Your task to perform on an android device: snooze an email in the gmail app Image 0: 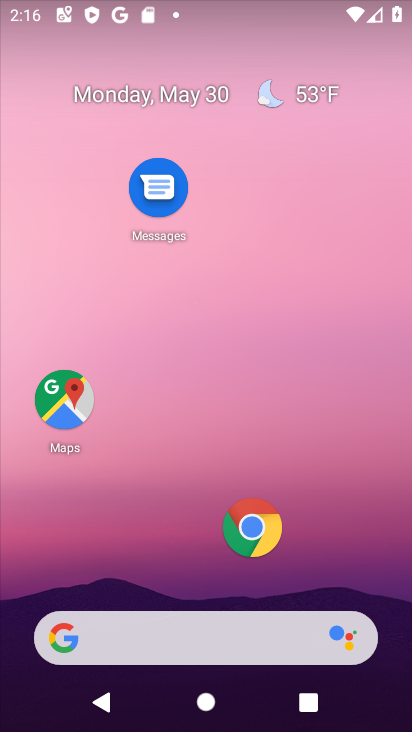
Step 0: drag from (177, 542) to (307, 33)
Your task to perform on an android device: snooze an email in the gmail app Image 1: 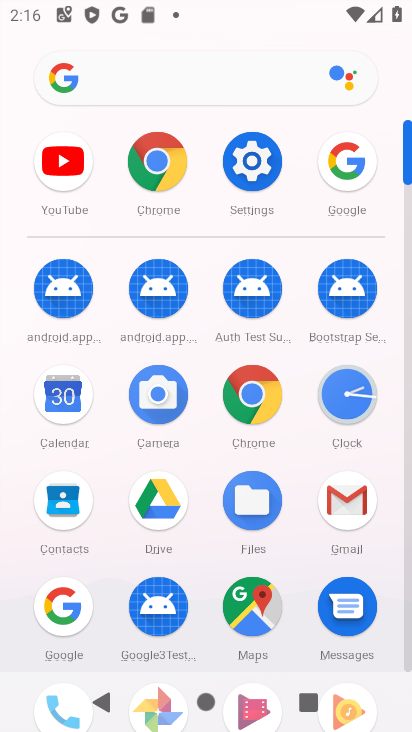
Step 1: click (354, 492)
Your task to perform on an android device: snooze an email in the gmail app Image 2: 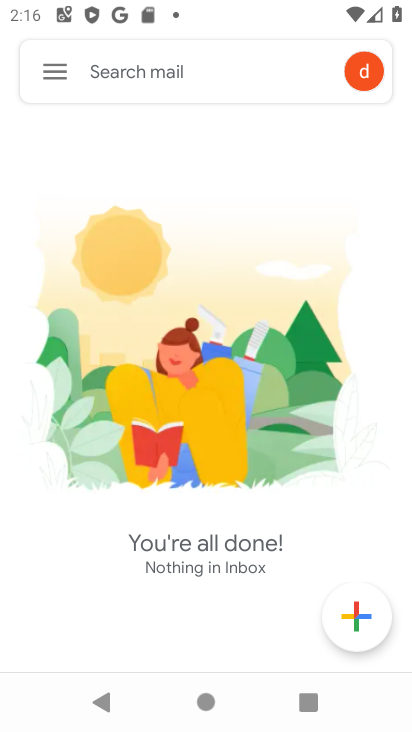
Step 2: click (43, 81)
Your task to perform on an android device: snooze an email in the gmail app Image 3: 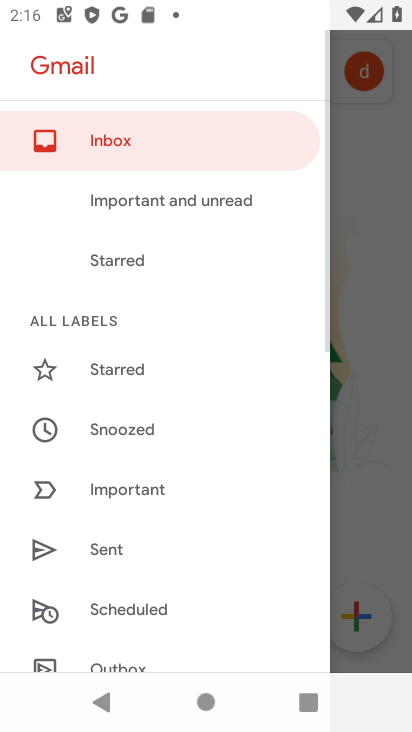
Step 3: drag from (137, 535) to (150, 219)
Your task to perform on an android device: snooze an email in the gmail app Image 4: 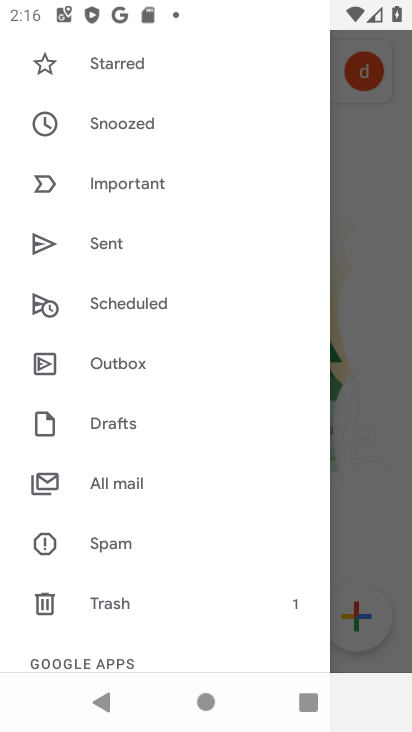
Step 4: click (124, 488)
Your task to perform on an android device: snooze an email in the gmail app Image 5: 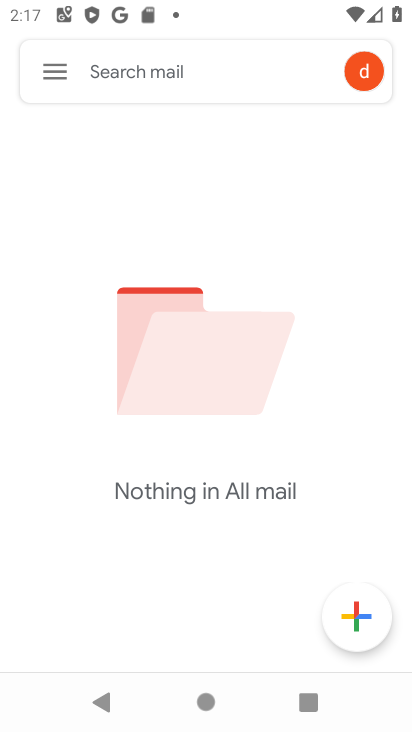
Step 5: task complete